Your task to perform on an android device: Open Chrome and go to settings Image 0: 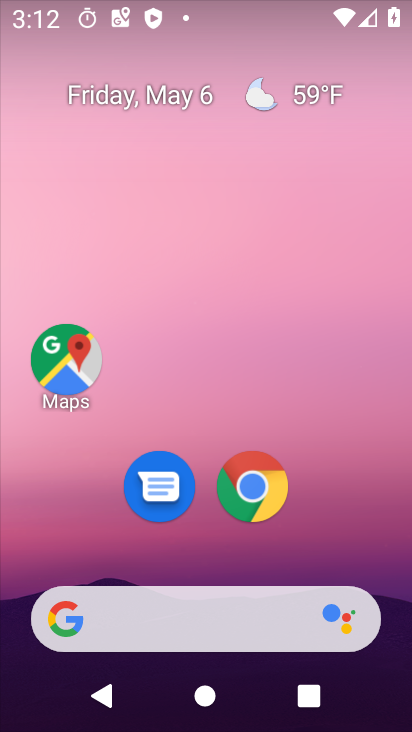
Step 0: click (264, 483)
Your task to perform on an android device: Open Chrome and go to settings Image 1: 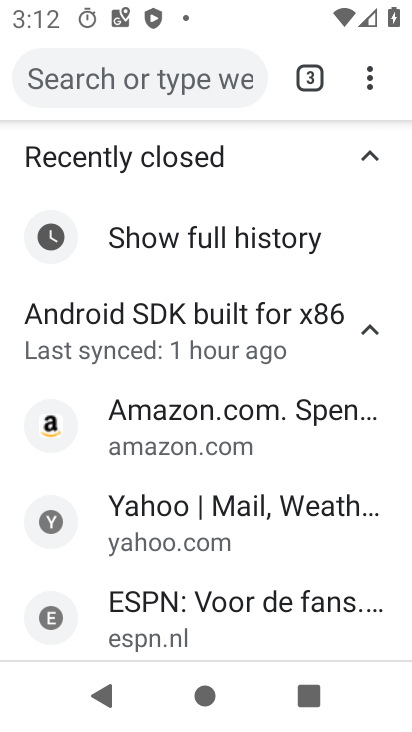
Step 1: click (369, 82)
Your task to perform on an android device: Open Chrome and go to settings Image 2: 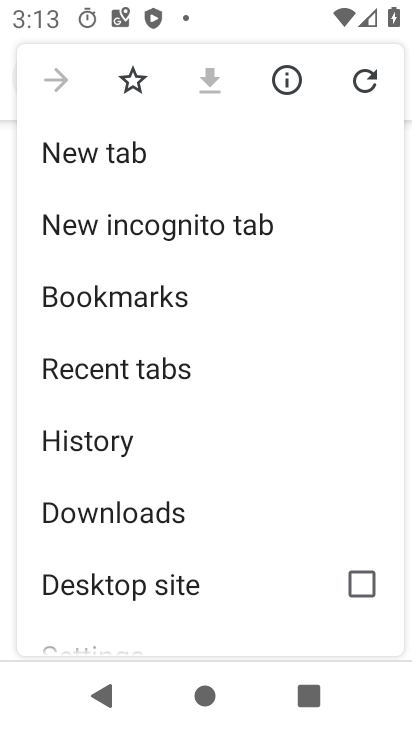
Step 2: drag from (218, 456) to (218, 74)
Your task to perform on an android device: Open Chrome and go to settings Image 3: 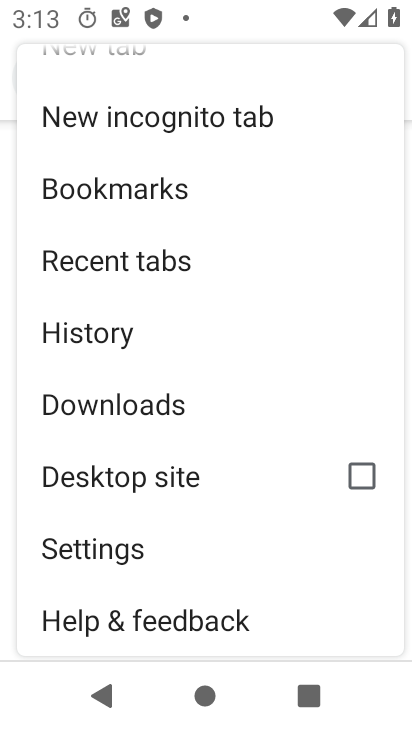
Step 3: click (96, 553)
Your task to perform on an android device: Open Chrome and go to settings Image 4: 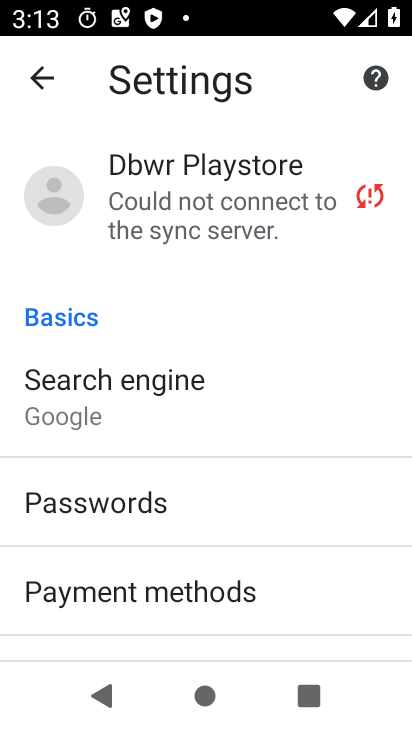
Step 4: task complete